Your task to perform on an android device: Go to ESPN.com Image 0: 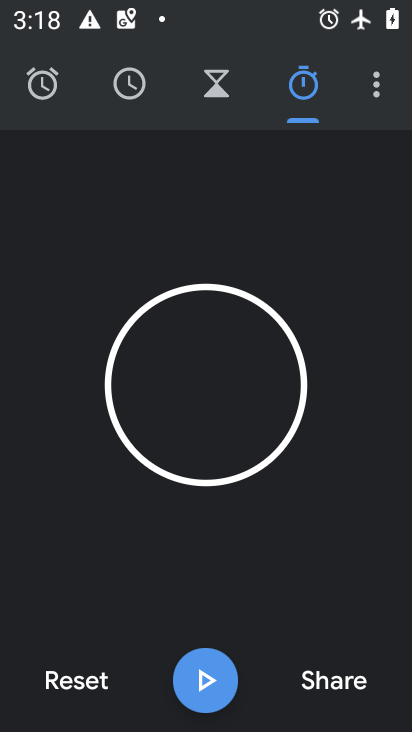
Step 0: press home button
Your task to perform on an android device: Go to ESPN.com Image 1: 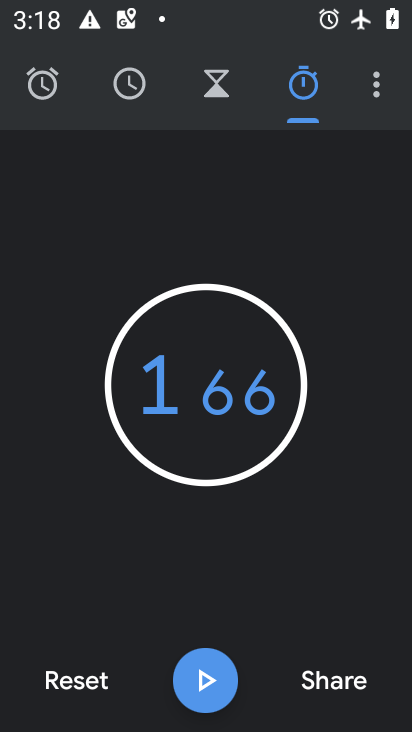
Step 1: press home button
Your task to perform on an android device: Go to ESPN.com Image 2: 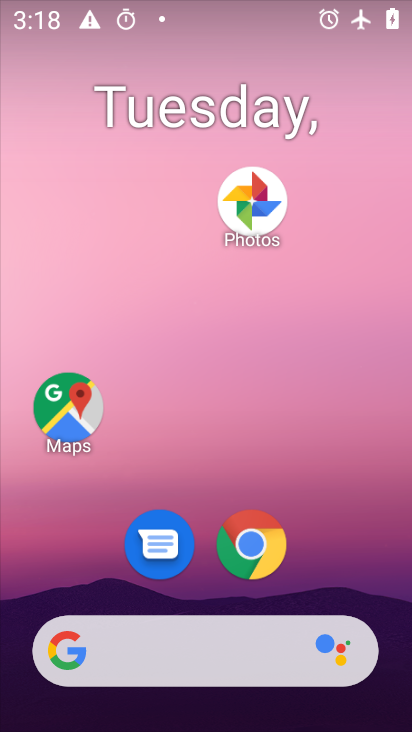
Step 2: drag from (323, 541) to (310, 202)
Your task to perform on an android device: Go to ESPN.com Image 3: 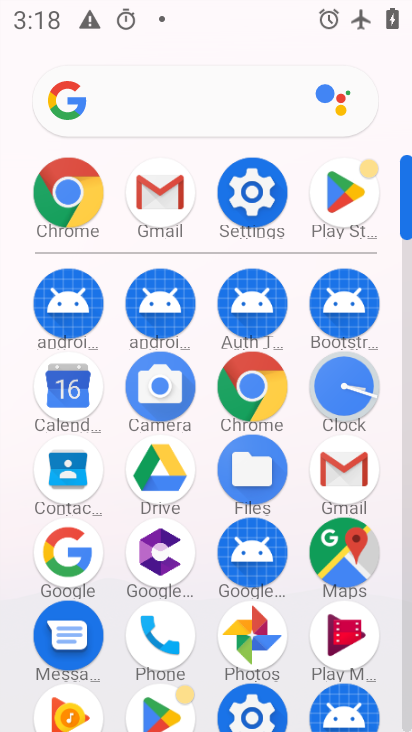
Step 3: click (250, 381)
Your task to perform on an android device: Go to ESPN.com Image 4: 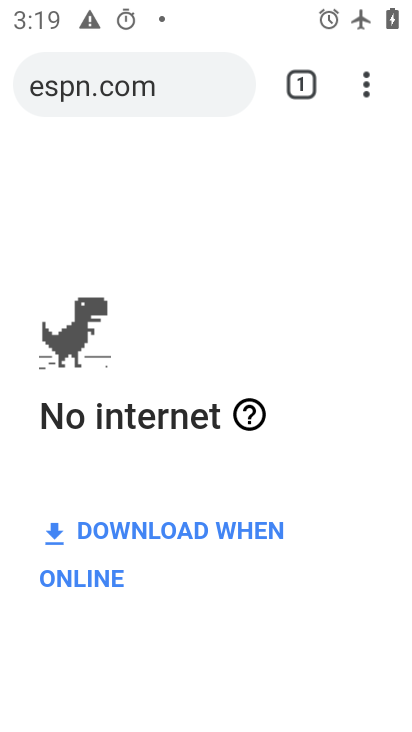
Step 4: task complete